Your task to perform on an android device: Go to notification settings Image 0: 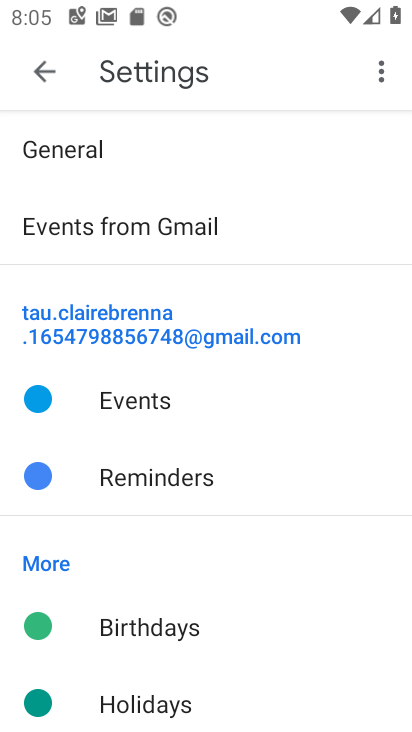
Step 0: press home button
Your task to perform on an android device: Go to notification settings Image 1: 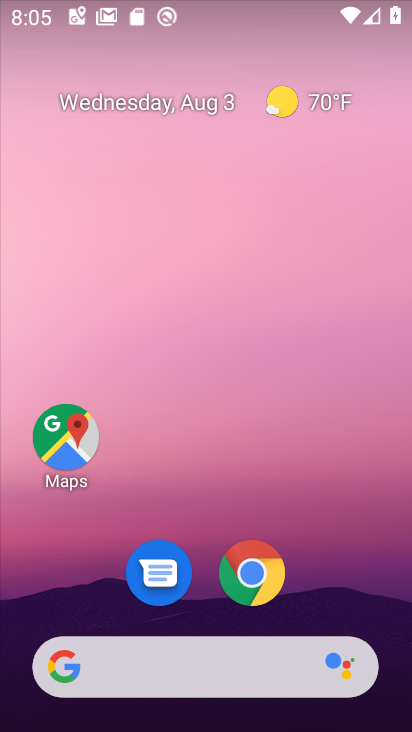
Step 1: drag from (340, 593) to (335, 33)
Your task to perform on an android device: Go to notification settings Image 2: 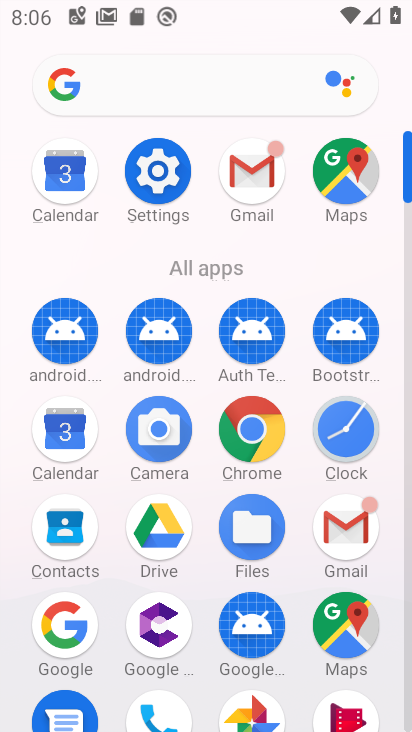
Step 2: click (158, 167)
Your task to perform on an android device: Go to notification settings Image 3: 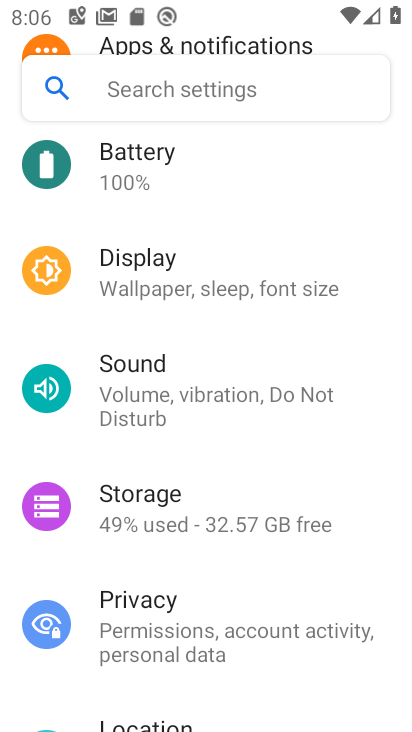
Step 3: drag from (372, 214) to (383, 509)
Your task to perform on an android device: Go to notification settings Image 4: 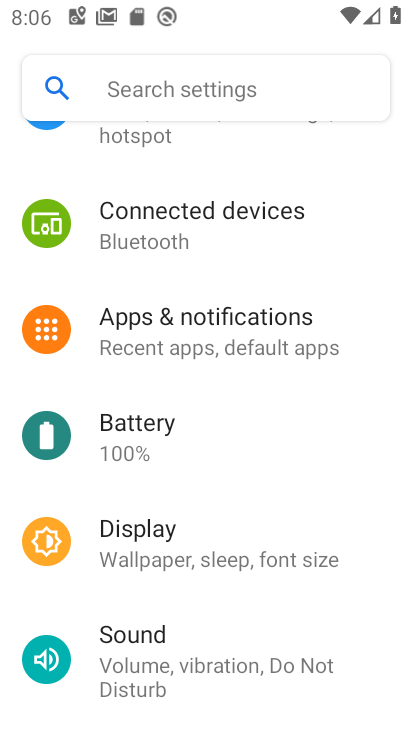
Step 4: click (157, 338)
Your task to perform on an android device: Go to notification settings Image 5: 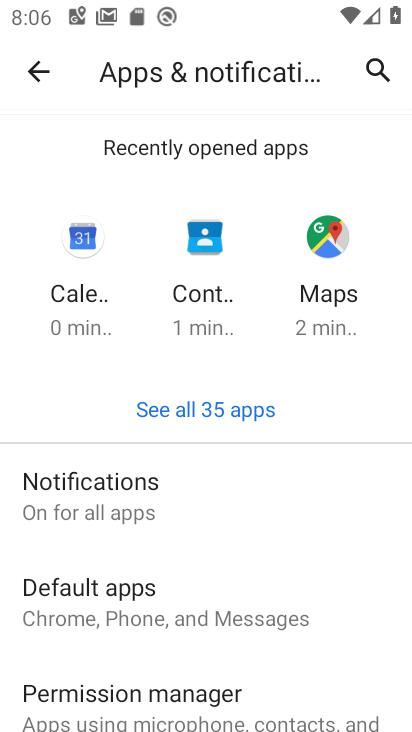
Step 5: click (92, 497)
Your task to perform on an android device: Go to notification settings Image 6: 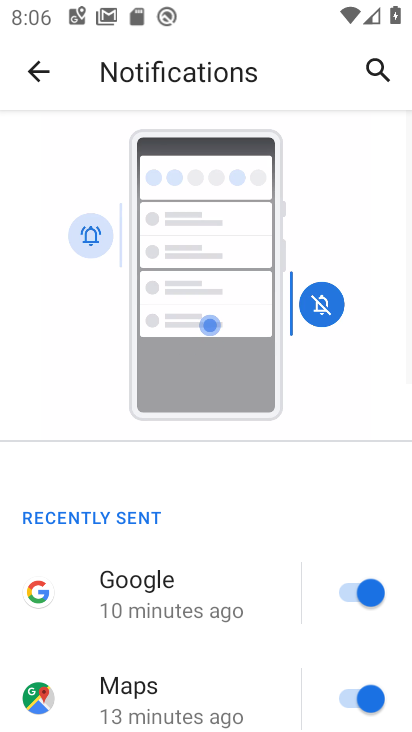
Step 6: task complete